Your task to perform on an android device: Open the calendar and show me this week's events Image 0: 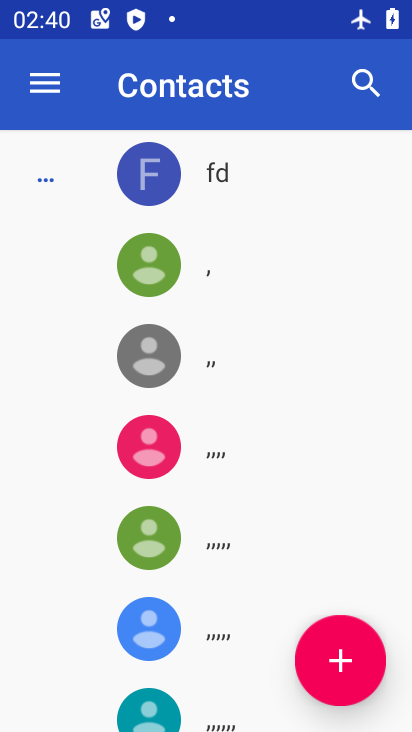
Step 0: press home button
Your task to perform on an android device: Open the calendar and show me this week's events Image 1: 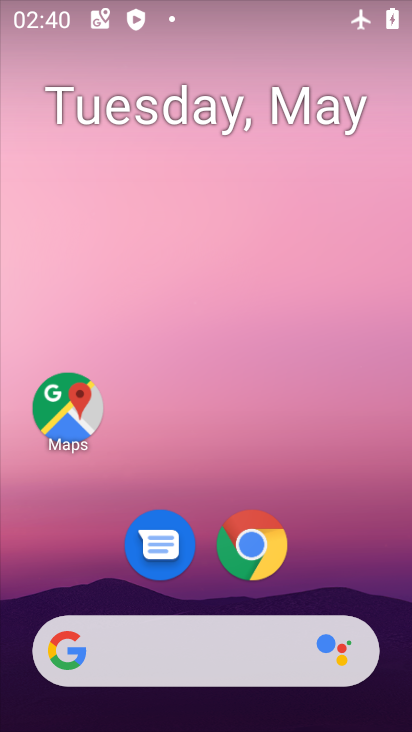
Step 1: drag from (391, 623) to (330, 127)
Your task to perform on an android device: Open the calendar and show me this week's events Image 2: 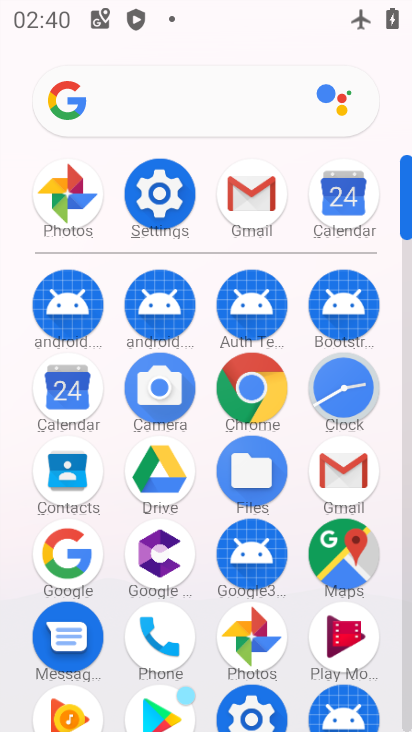
Step 2: click (408, 700)
Your task to perform on an android device: Open the calendar and show me this week's events Image 3: 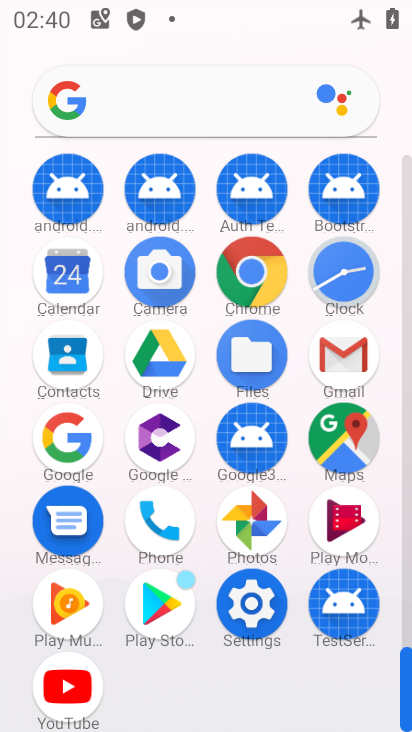
Step 3: click (65, 270)
Your task to perform on an android device: Open the calendar and show me this week's events Image 4: 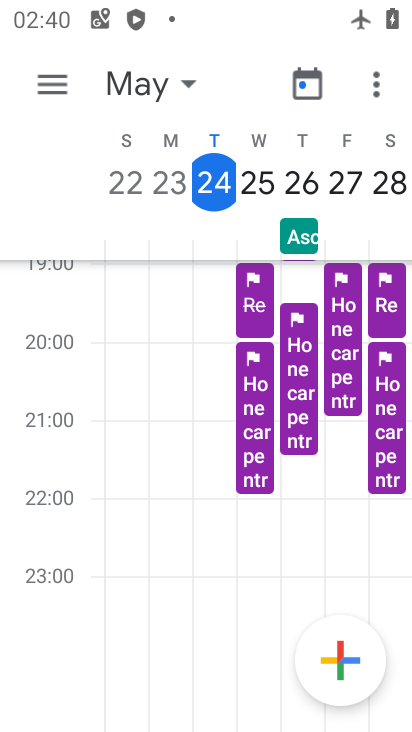
Step 4: task complete